Your task to perform on an android device: Go to display settings Image 0: 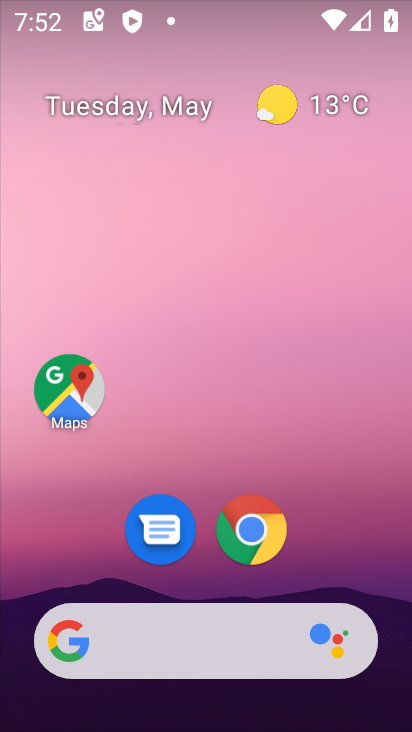
Step 0: drag from (336, 557) to (215, 74)
Your task to perform on an android device: Go to display settings Image 1: 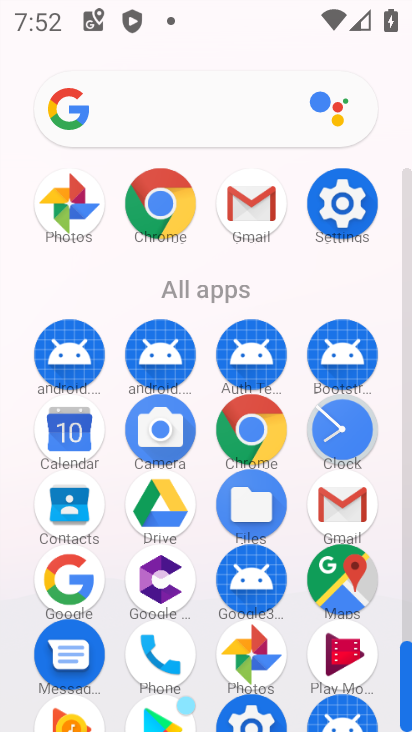
Step 1: click (338, 199)
Your task to perform on an android device: Go to display settings Image 2: 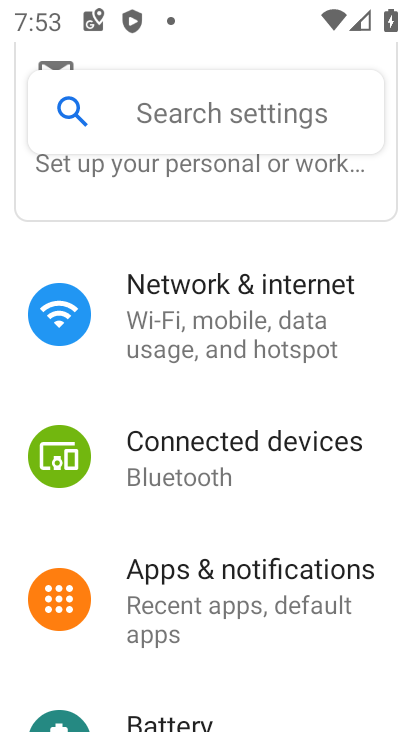
Step 2: drag from (250, 671) to (220, 169)
Your task to perform on an android device: Go to display settings Image 3: 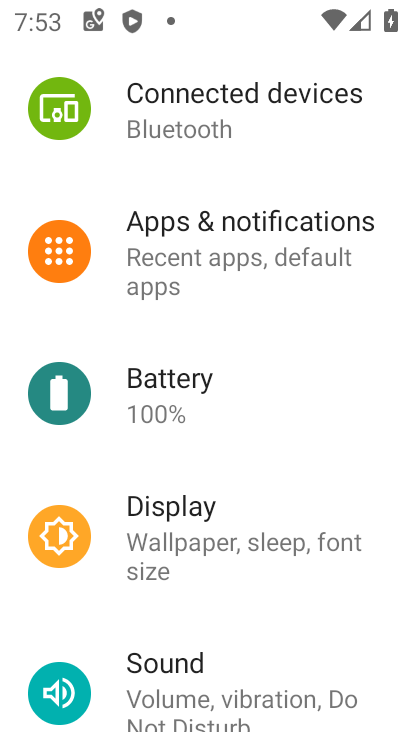
Step 3: click (231, 526)
Your task to perform on an android device: Go to display settings Image 4: 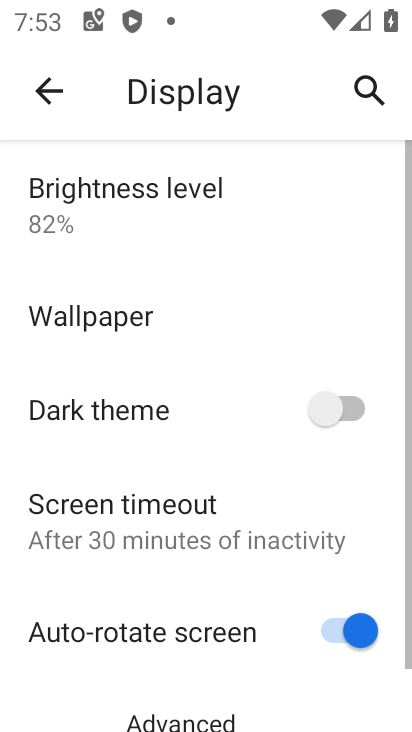
Step 4: task complete